Your task to perform on an android device: install app "Google Translate" Image 0: 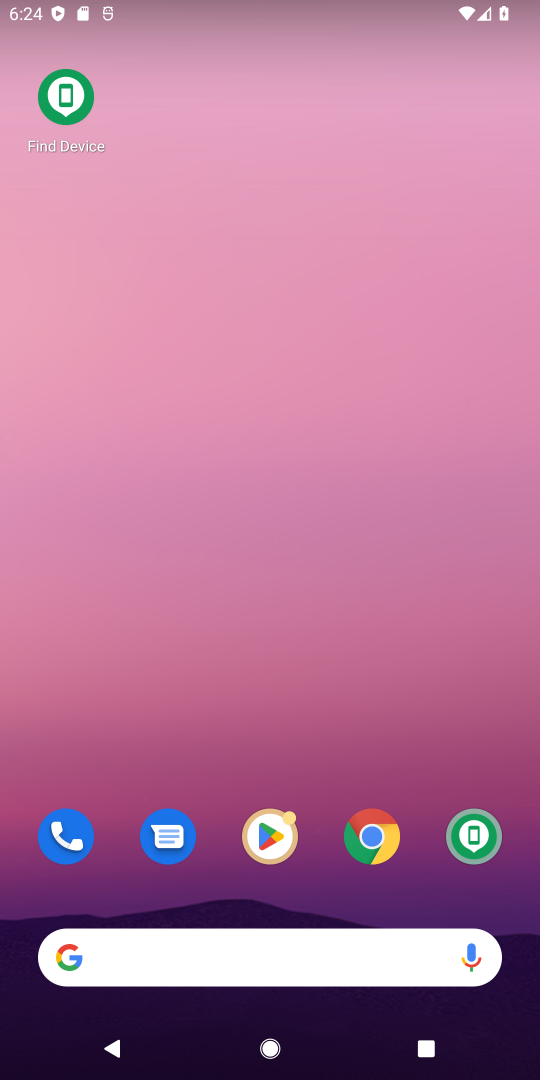
Step 0: click (262, 836)
Your task to perform on an android device: install app "Google Translate" Image 1: 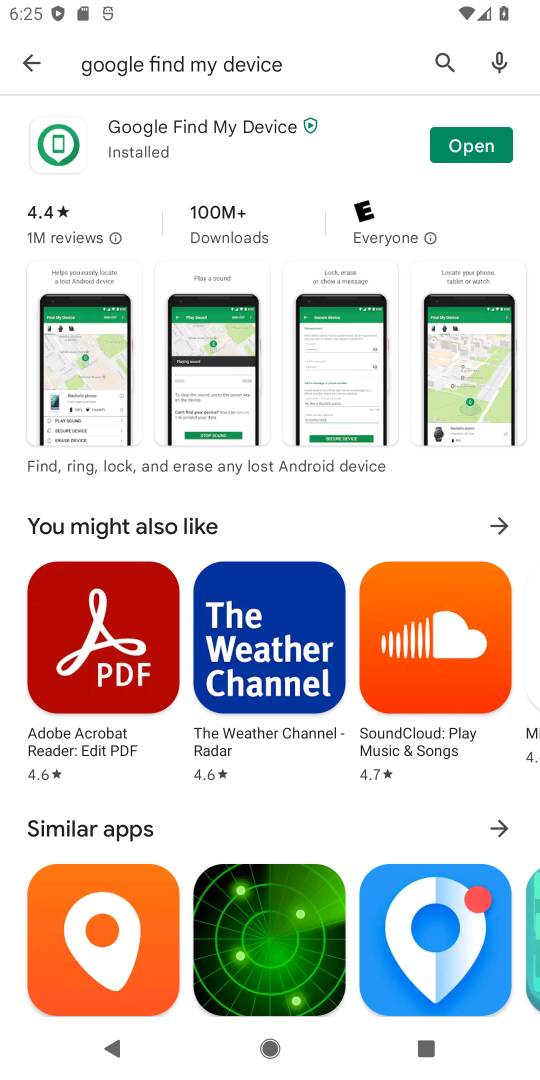
Step 1: click (441, 53)
Your task to perform on an android device: install app "Google Translate" Image 2: 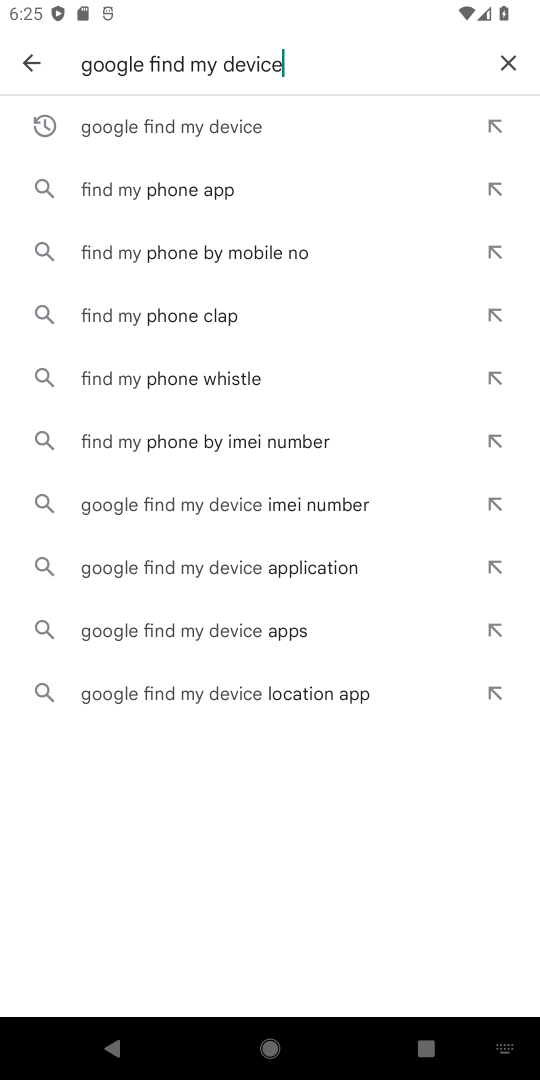
Step 2: click (508, 58)
Your task to perform on an android device: install app "Google Translate" Image 3: 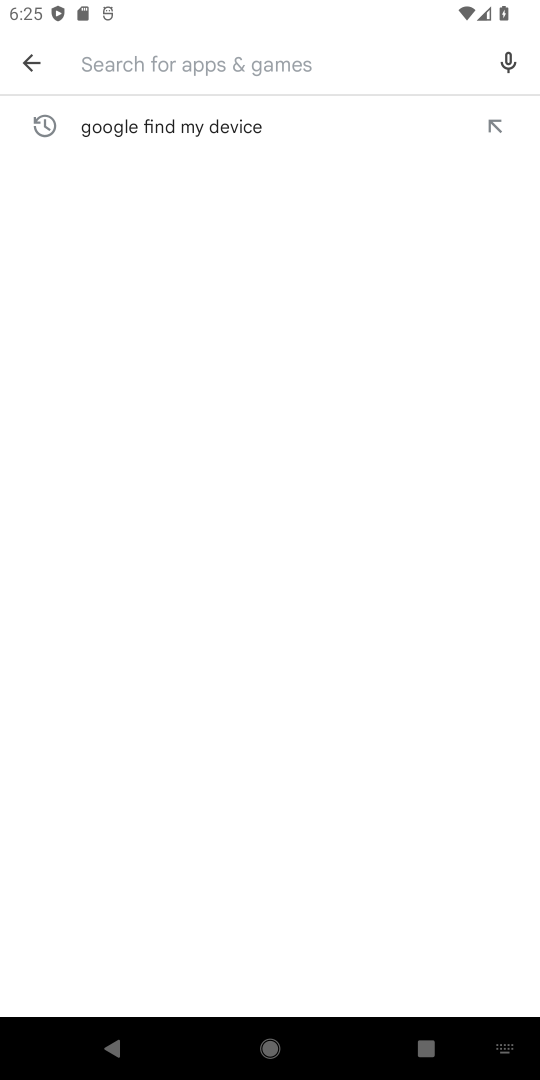
Step 3: type "Google Translate"
Your task to perform on an android device: install app "Google Translate" Image 4: 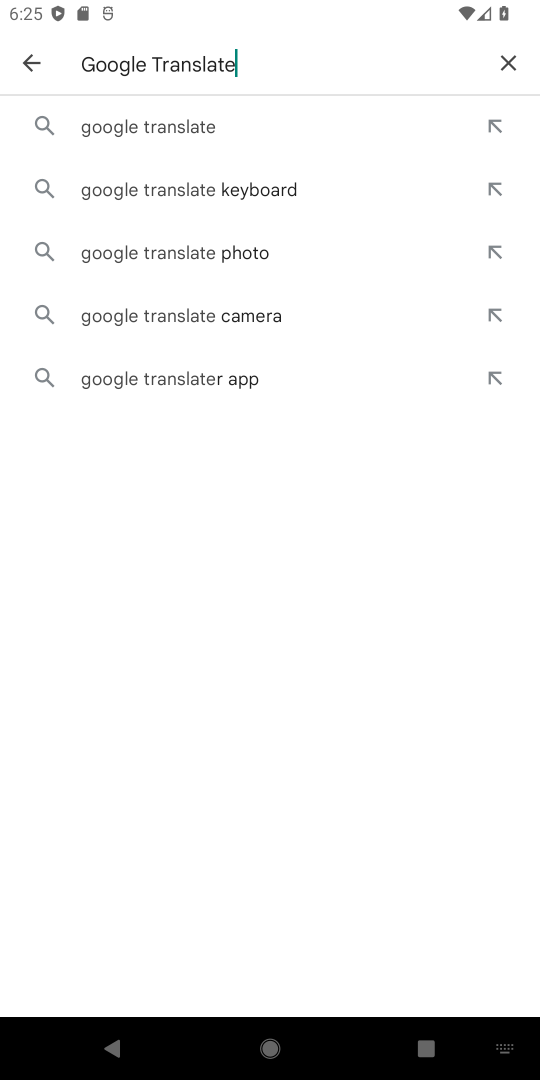
Step 4: click (149, 122)
Your task to perform on an android device: install app "Google Translate" Image 5: 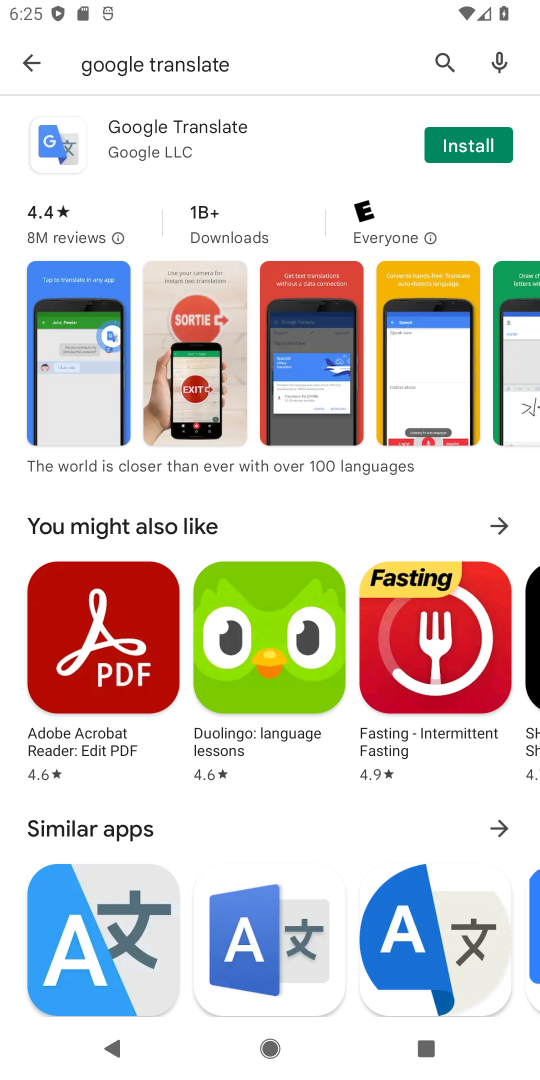
Step 5: click (466, 144)
Your task to perform on an android device: install app "Google Translate" Image 6: 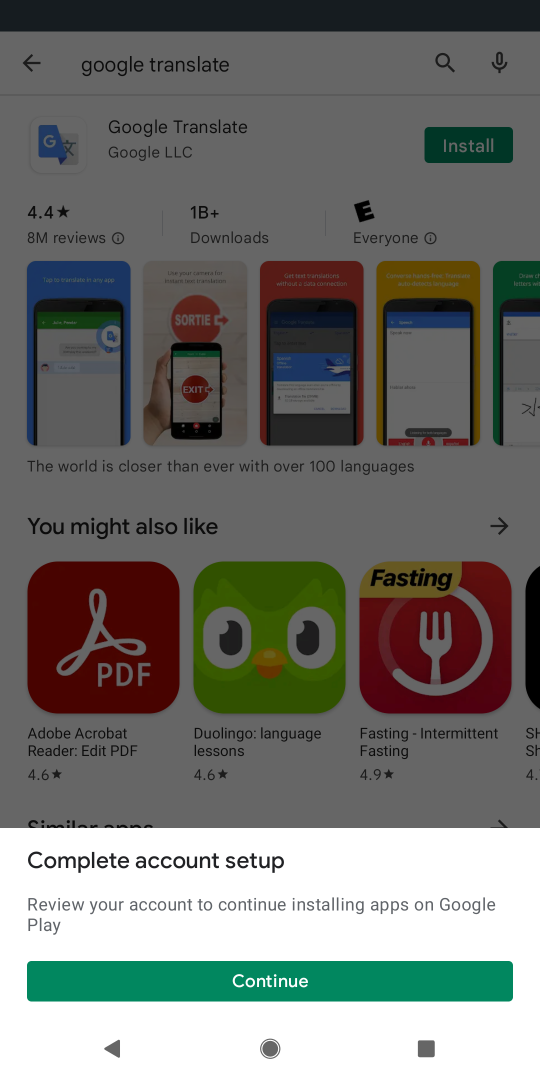
Step 6: click (304, 985)
Your task to perform on an android device: install app "Google Translate" Image 7: 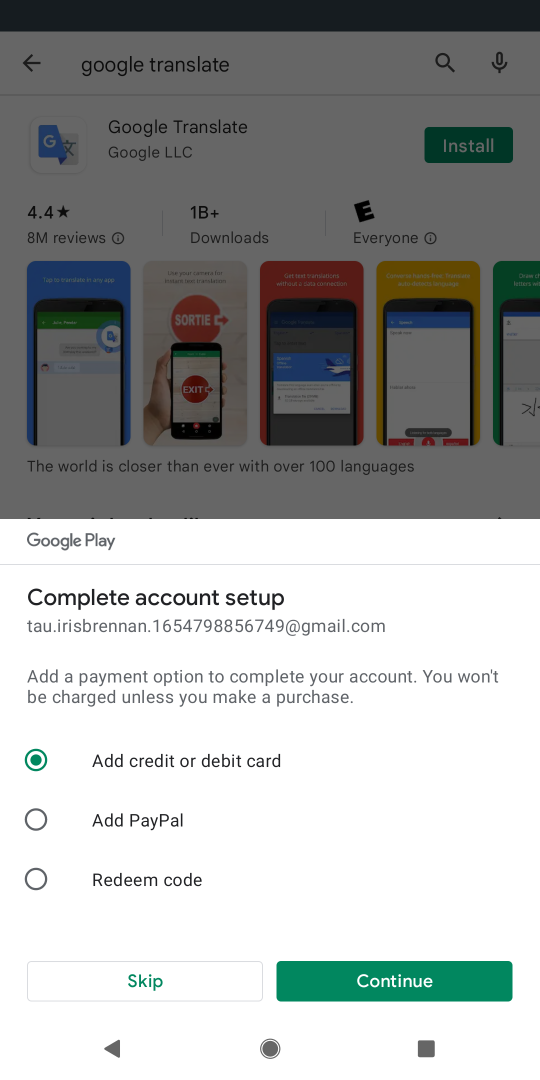
Step 7: click (197, 977)
Your task to perform on an android device: install app "Google Translate" Image 8: 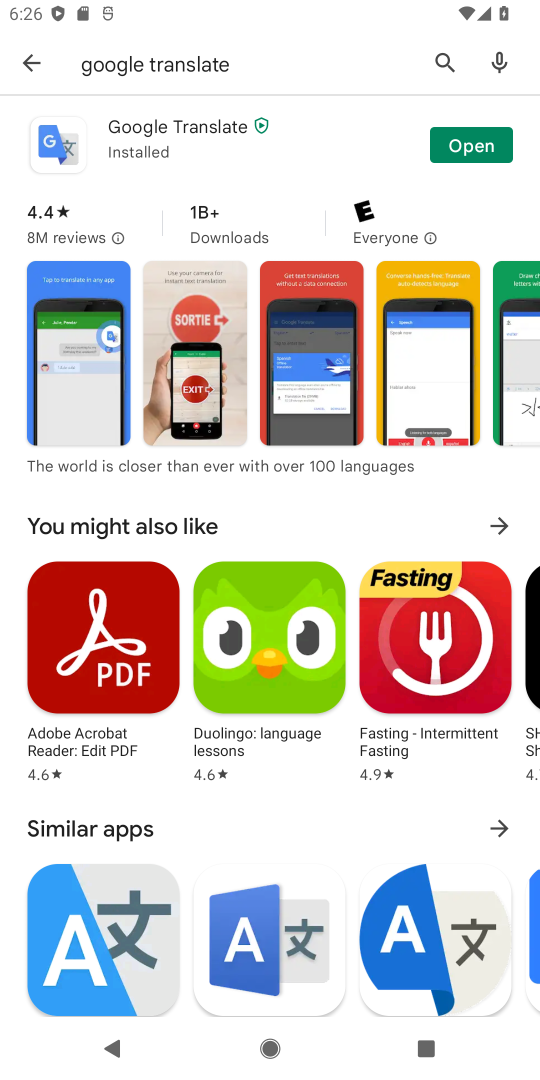
Step 8: task complete